Your task to perform on an android device: set an alarm Image 0: 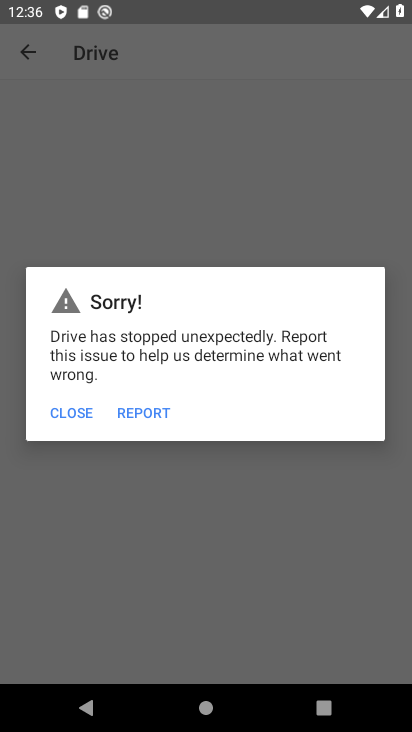
Step 0: press home button
Your task to perform on an android device: set an alarm Image 1: 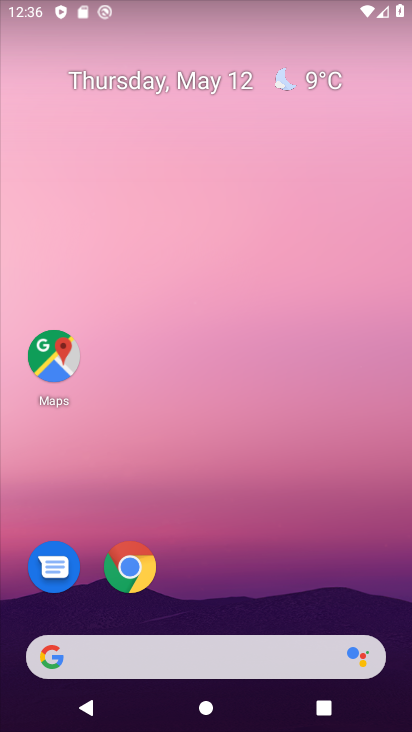
Step 1: drag from (235, 633) to (287, 125)
Your task to perform on an android device: set an alarm Image 2: 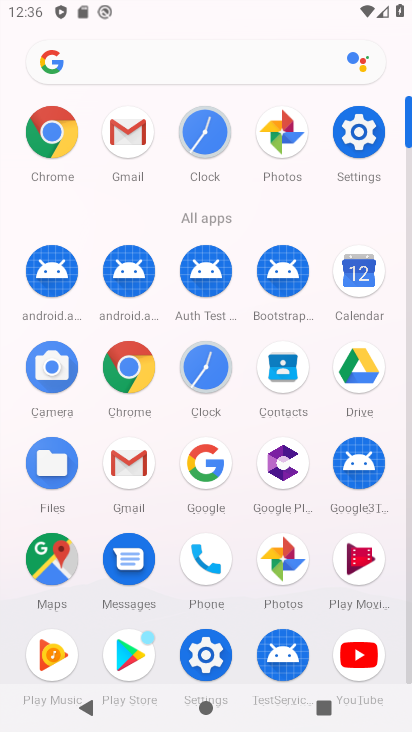
Step 2: click (204, 347)
Your task to perform on an android device: set an alarm Image 3: 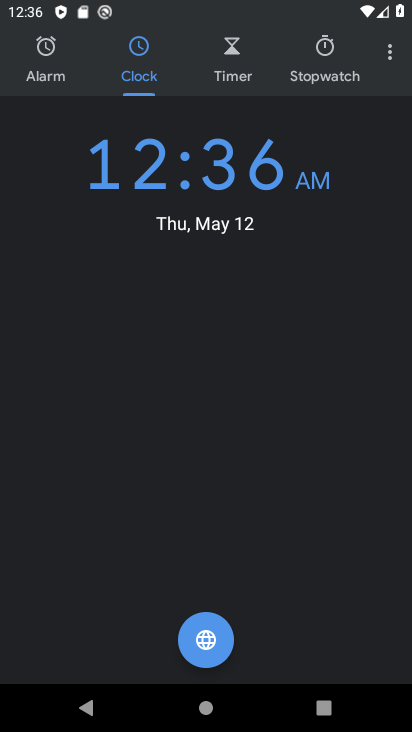
Step 3: click (32, 52)
Your task to perform on an android device: set an alarm Image 4: 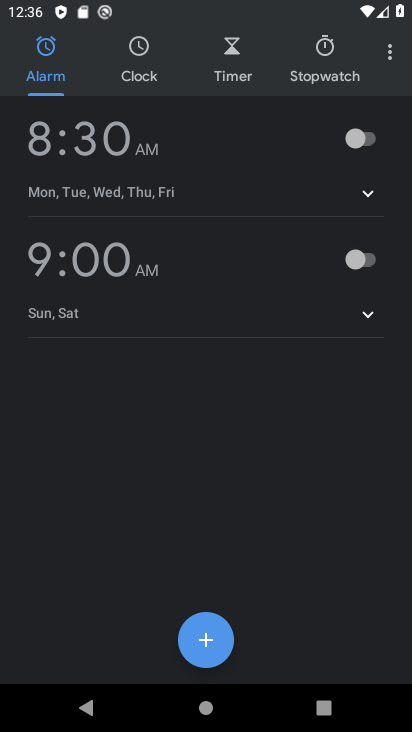
Step 4: click (379, 137)
Your task to perform on an android device: set an alarm Image 5: 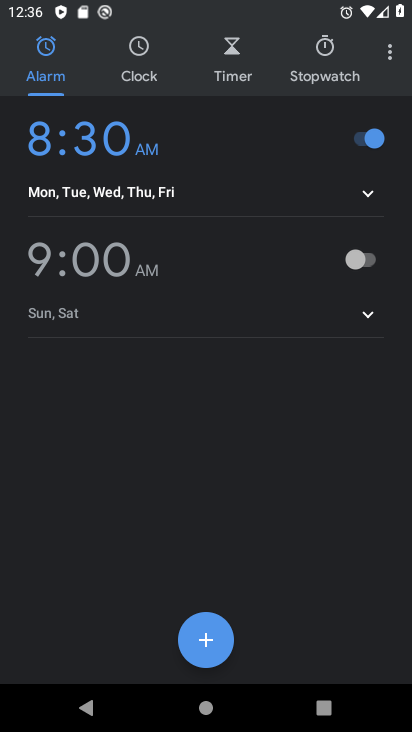
Step 5: task complete